Your task to perform on an android device: Open the phone app and click the voicemail tab. Image 0: 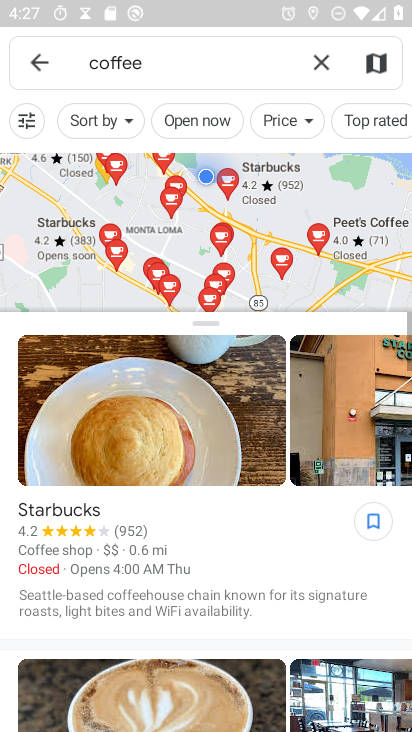
Step 0: press home button
Your task to perform on an android device: Open the phone app and click the voicemail tab. Image 1: 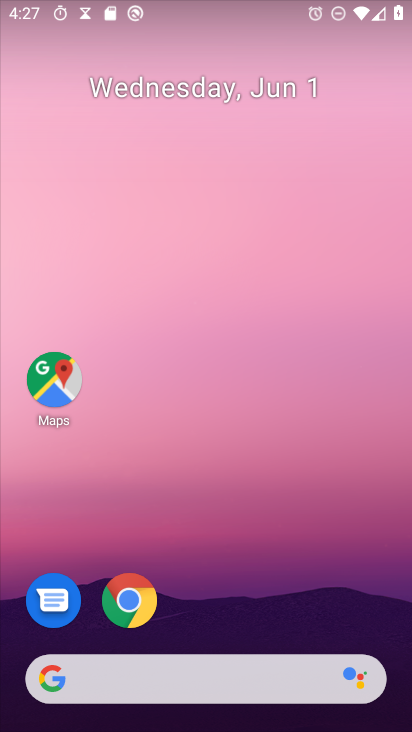
Step 1: drag from (220, 626) to (216, 288)
Your task to perform on an android device: Open the phone app and click the voicemail tab. Image 2: 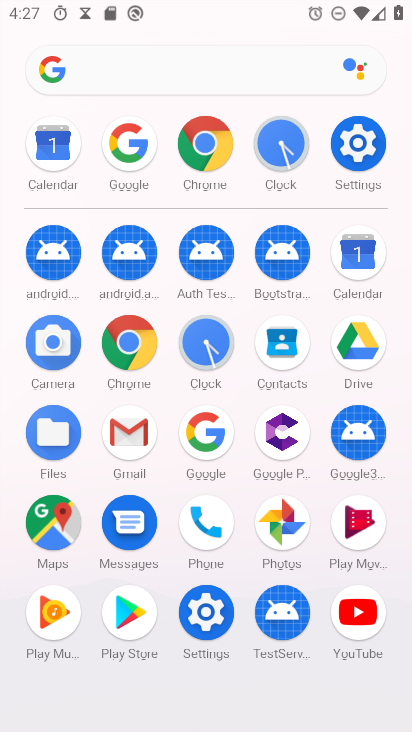
Step 2: click (205, 519)
Your task to perform on an android device: Open the phone app and click the voicemail tab. Image 3: 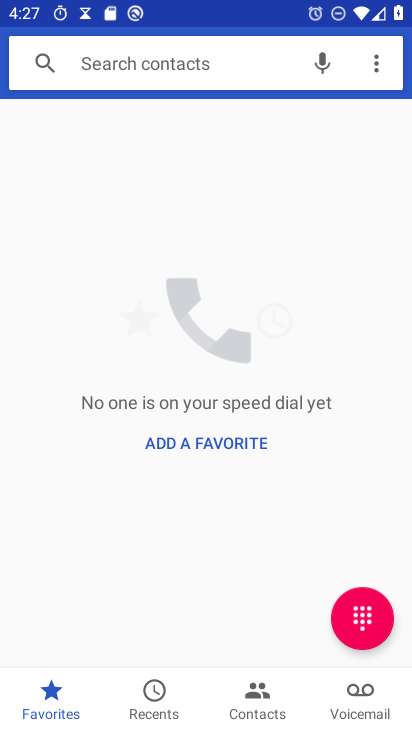
Step 3: click (359, 693)
Your task to perform on an android device: Open the phone app and click the voicemail tab. Image 4: 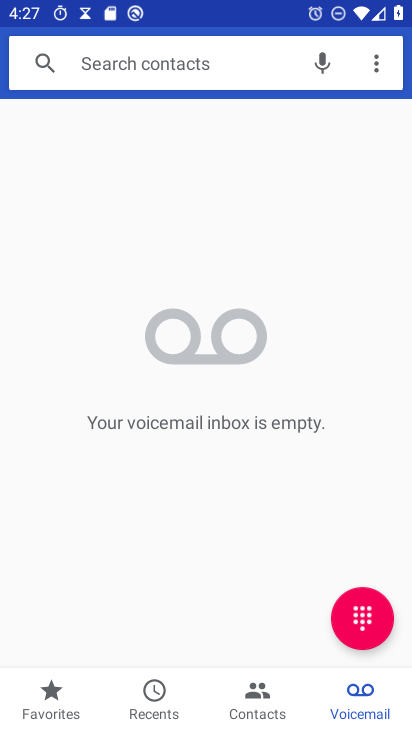
Step 4: task complete